Your task to perform on an android device: clear all cookies in the chrome app Image 0: 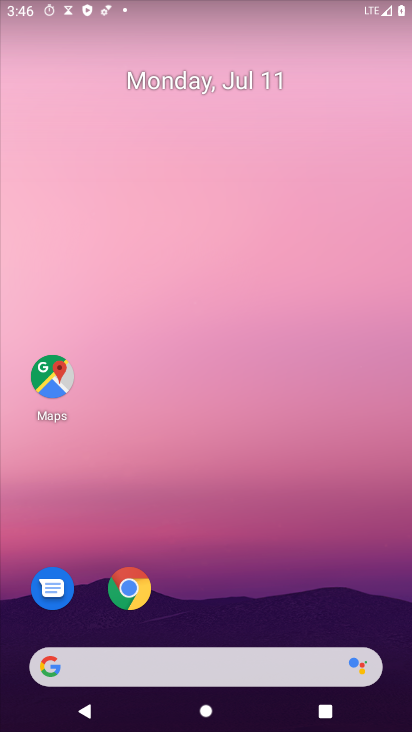
Step 0: click (123, 583)
Your task to perform on an android device: clear all cookies in the chrome app Image 1: 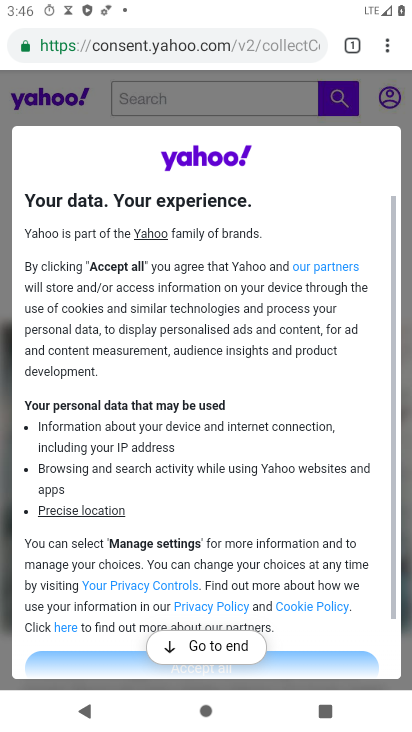
Step 1: click (387, 50)
Your task to perform on an android device: clear all cookies in the chrome app Image 2: 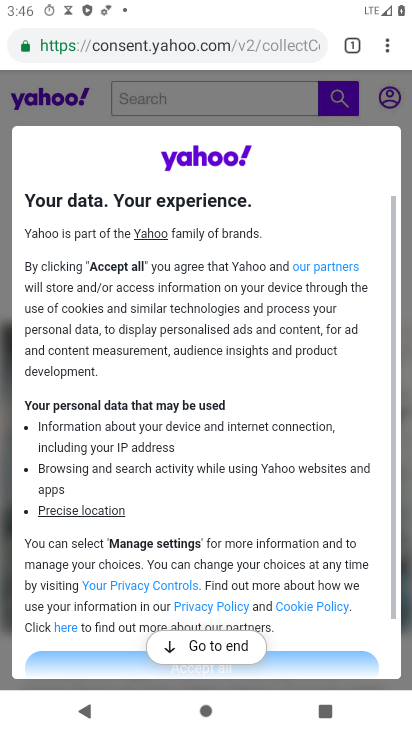
Step 2: click (387, 50)
Your task to perform on an android device: clear all cookies in the chrome app Image 3: 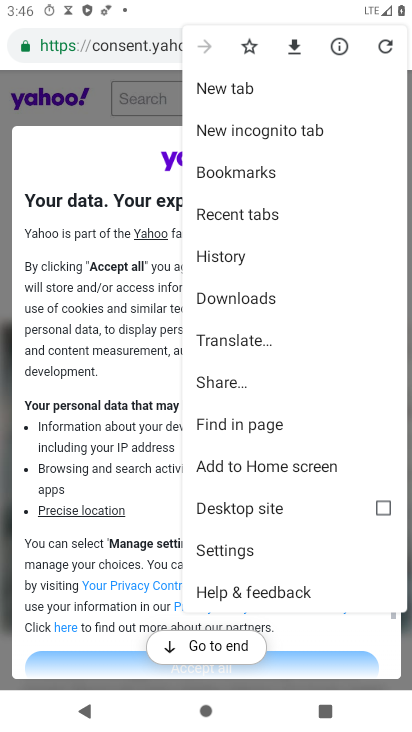
Step 3: click (217, 253)
Your task to perform on an android device: clear all cookies in the chrome app Image 4: 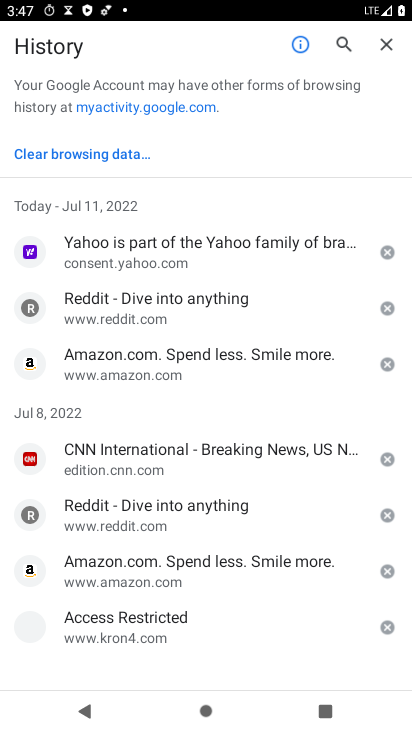
Step 4: click (105, 154)
Your task to perform on an android device: clear all cookies in the chrome app Image 5: 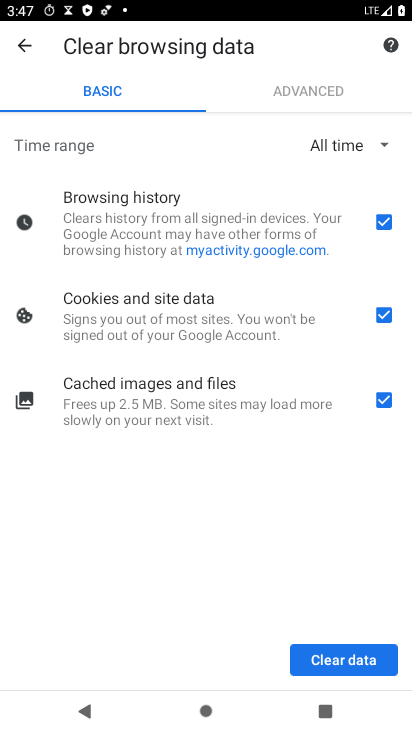
Step 5: click (380, 229)
Your task to perform on an android device: clear all cookies in the chrome app Image 6: 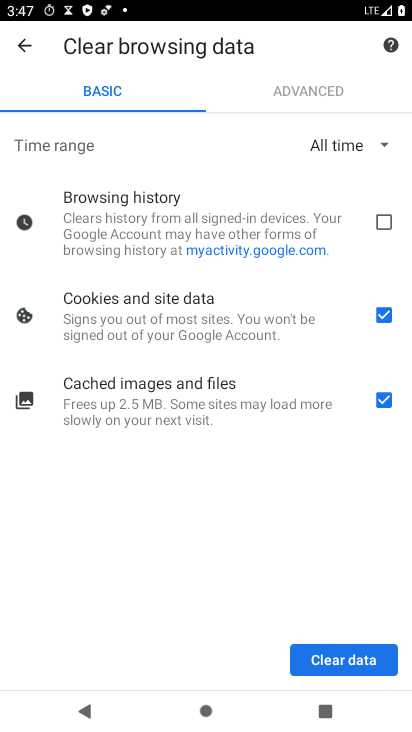
Step 6: click (385, 394)
Your task to perform on an android device: clear all cookies in the chrome app Image 7: 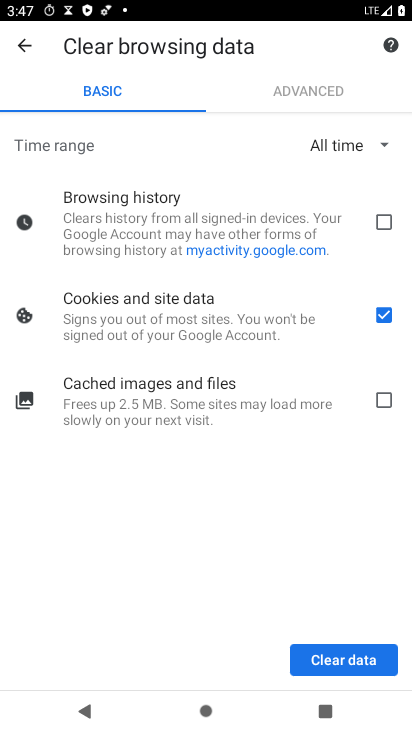
Step 7: click (324, 660)
Your task to perform on an android device: clear all cookies in the chrome app Image 8: 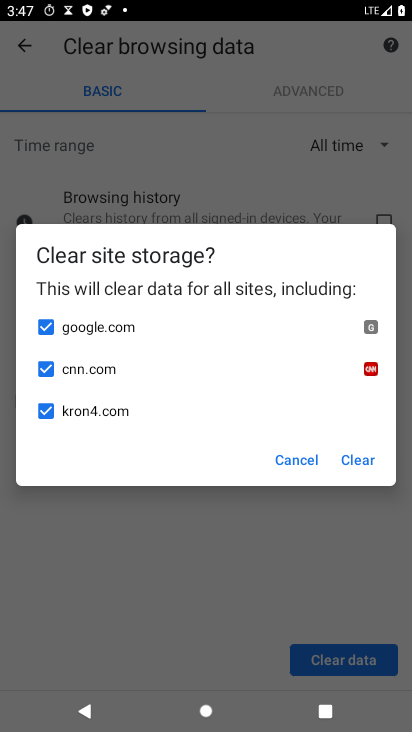
Step 8: click (365, 462)
Your task to perform on an android device: clear all cookies in the chrome app Image 9: 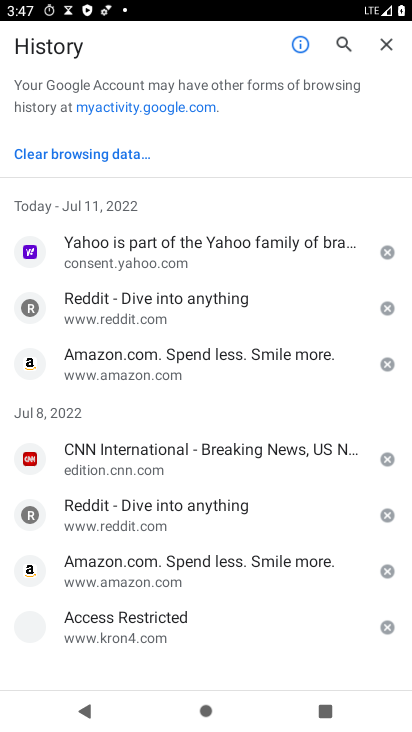
Step 9: task complete